Your task to perform on an android device: toggle notifications settings in the gmail app Image 0: 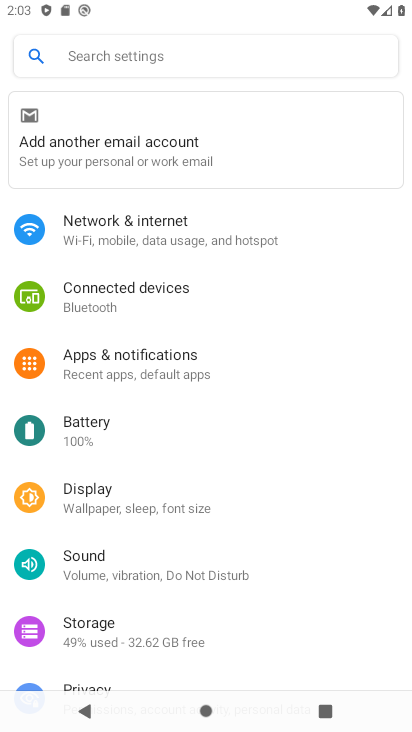
Step 0: press home button
Your task to perform on an android device: toggle notifications settings in the gmail app Image 1: 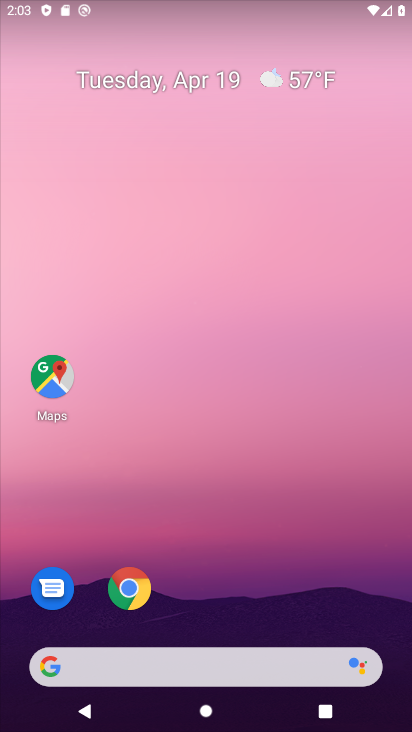
Step 1: drag from (293, 543) to (320, 188)
Your task to perform on an android device: toggle notifications settings in the gmail app Image 2: 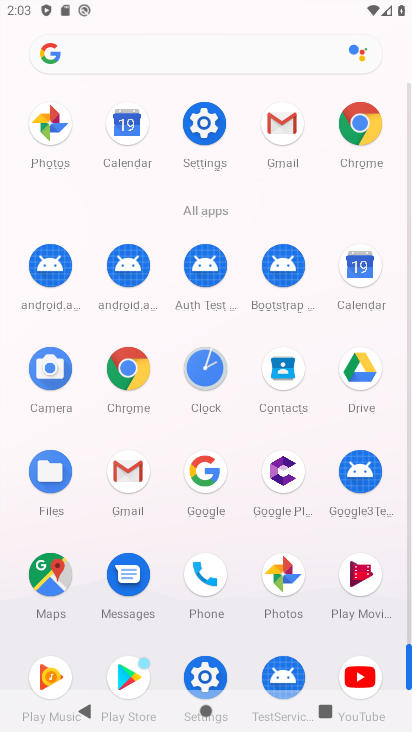
Step 2: click (279, 134)
Your task to perform on an android device: toggle notifications settings in the gmail app Image 3: 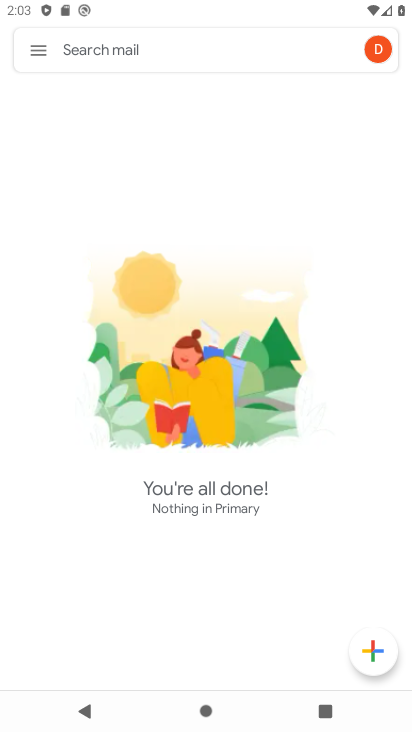
Step 3: click (37, 45)
Your task to perform on an android device: toggle notifications settings in the gmail app Image 4: 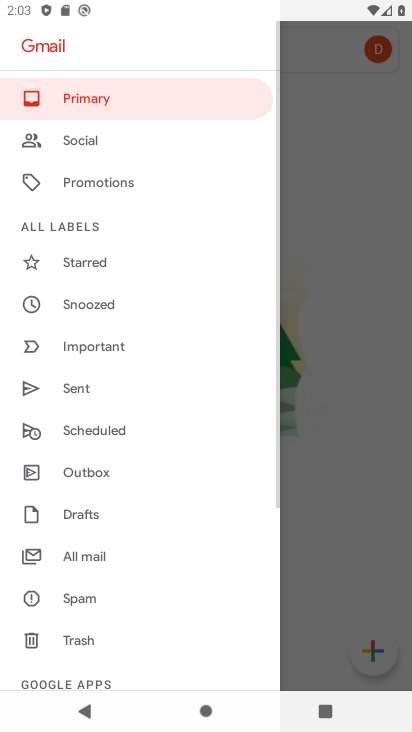
Step 4: drag from (146, 633) to (221, 134)
Your task to perform on an android device: toggle notifications settings in the gmail app Image 5: 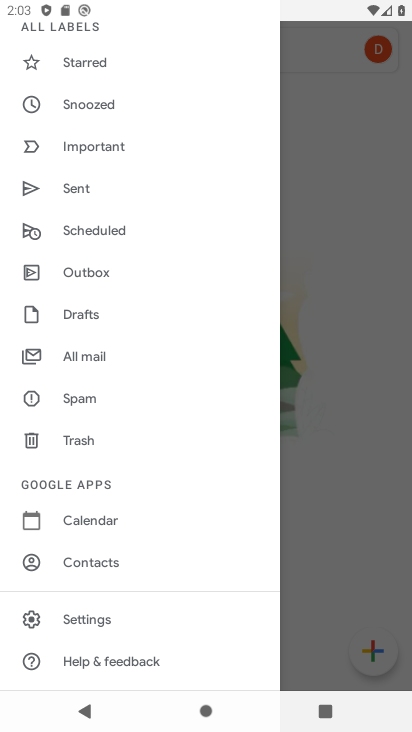
Step 5: click (116, 607)
Your task to perform on an android device: toggle notifications settings in the gmail app Image 6: 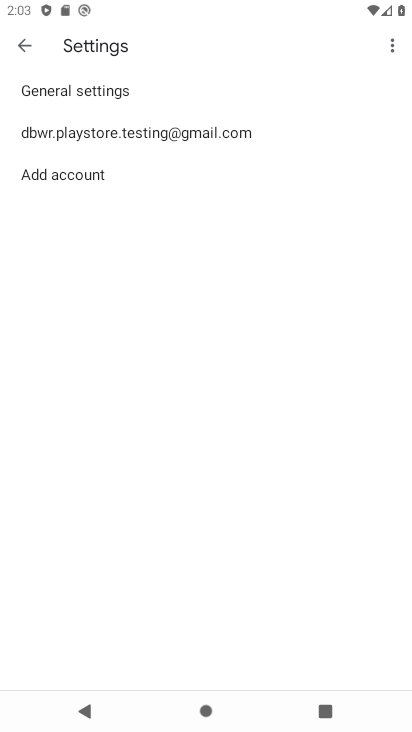
Step 6: click (242, 130)
Your task to perform on an android device: toggle notifications settings in the gmail app Image 7: 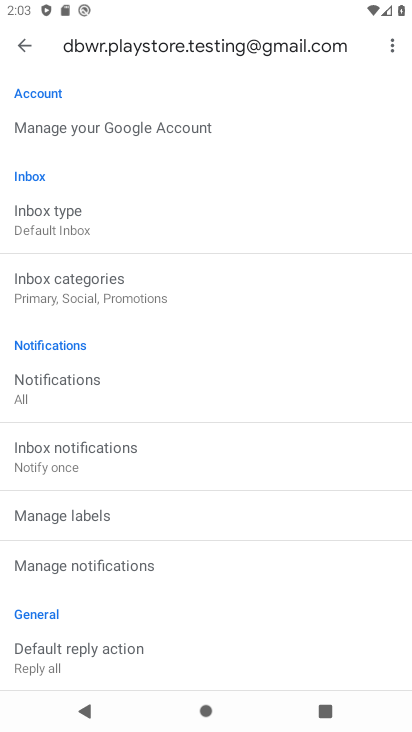
Step 7: click (247, 580)
Your task to perform on an android device: toggle notifications settings in the gmail app Image 8: 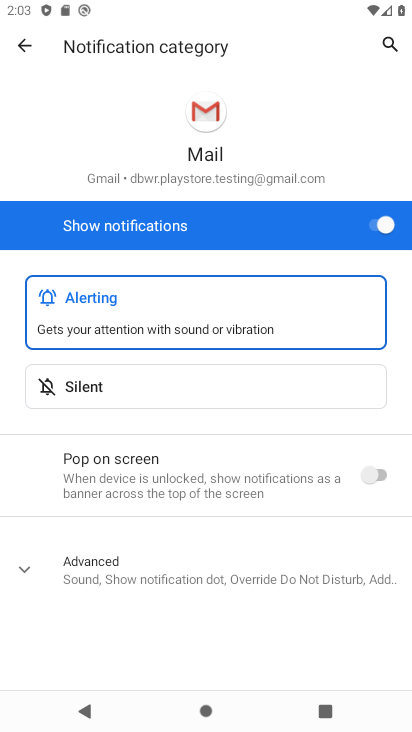
Step 8: click (375, 215)
Your task to perform on an android device: toggle notifications settings in the gmail app Image 9: 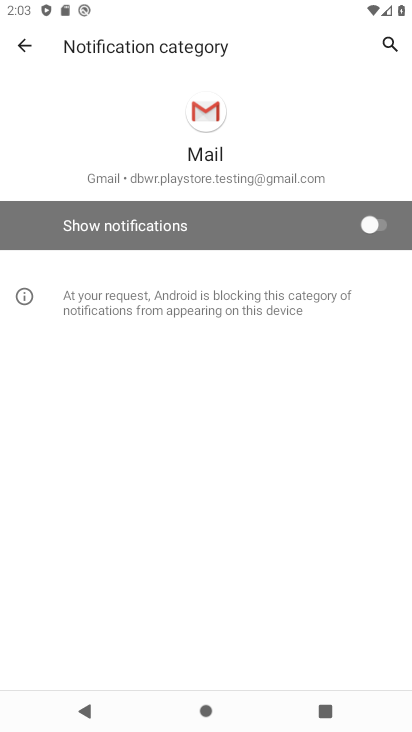
Step 9: task complete